Your task to perform on an android device: Open CNN.com Image 0: 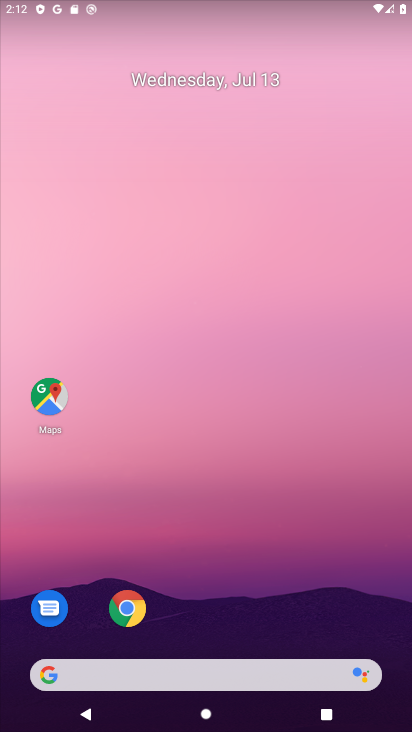
Step 0: click (180, 673)
Your task to perform on an android device: Open CNN.com Image 1: 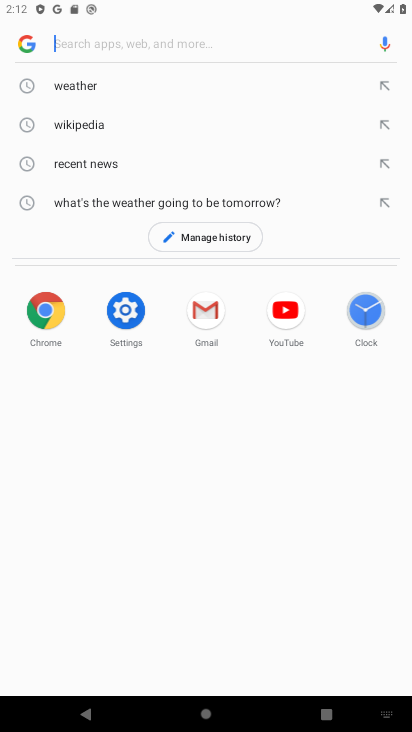
Step 1: type "cnn.com"
Your task to perform on an android device: Open CNN.com Image 2: 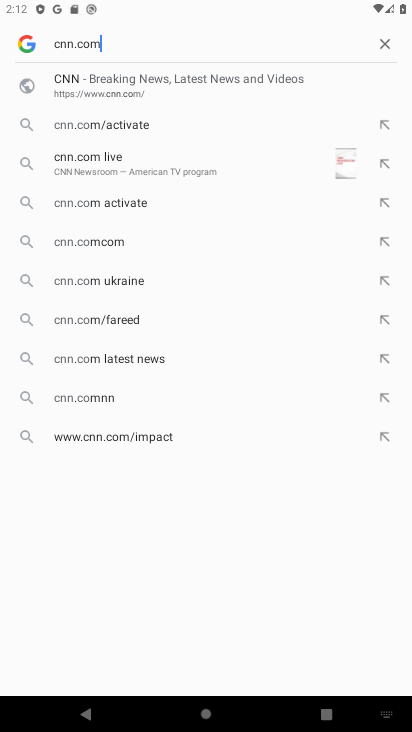
Step 2: click (73, 71)
Your task to perform on an android device: Open CNN.com Image 3: 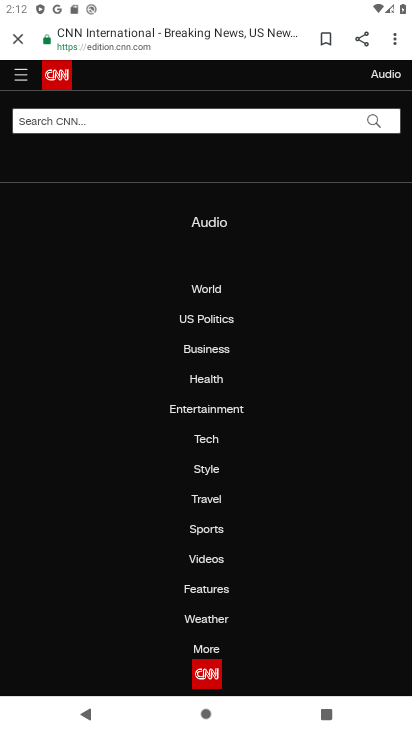
Step 3: task complete